Your task to perform on an android device: check android version Image 0: 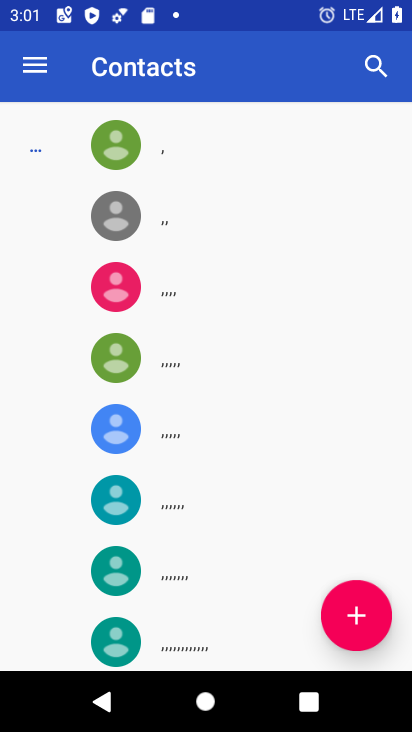
Step 0: press home button
Your task to perform on an android device: check android version Image 1: 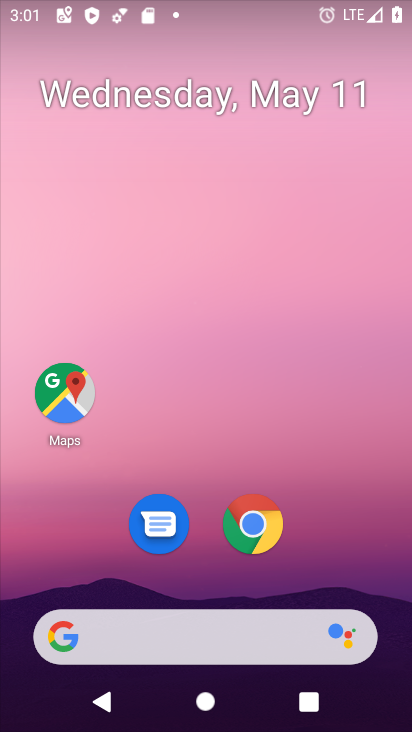
Step 1: drag from (322, 537) to (238, 45)
Your task to perform on an android device: check android version Image 2: 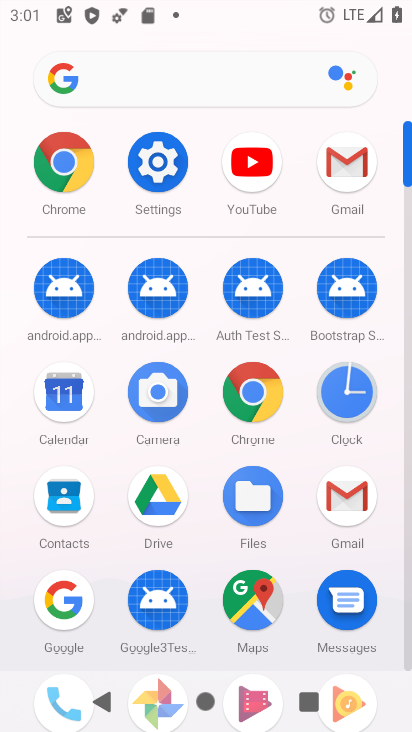
Step 2: click (159, 155)
Your task to perform on an android device: check android version Image 3: 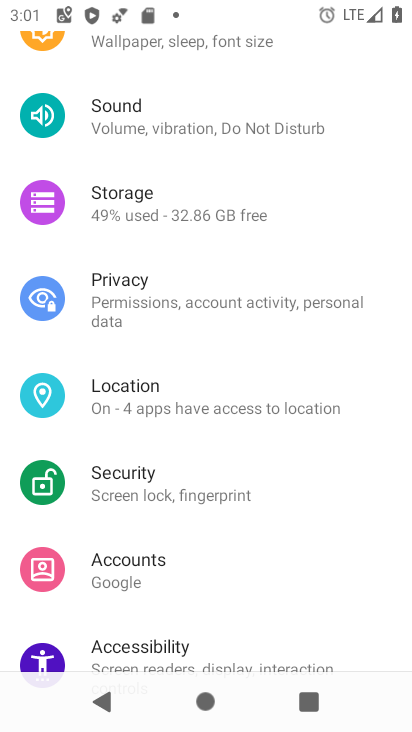
Step 3: drag from (239, 587) to (259, 59)
Your task to perform on an android device: check android version Image 4: 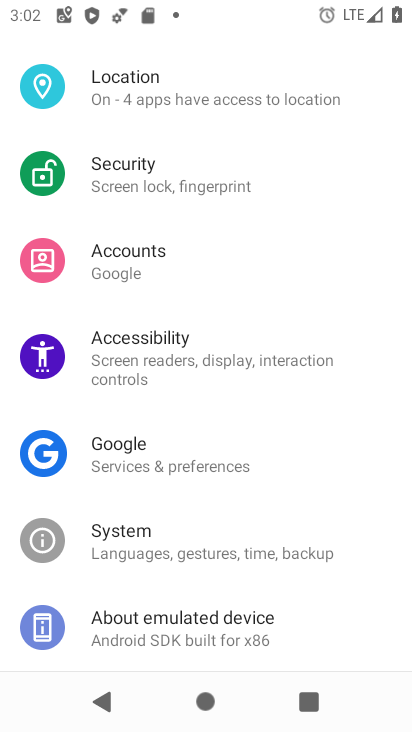
Step 4: click (169, 627)
Your task to perform on an android device: check android version Image 5: 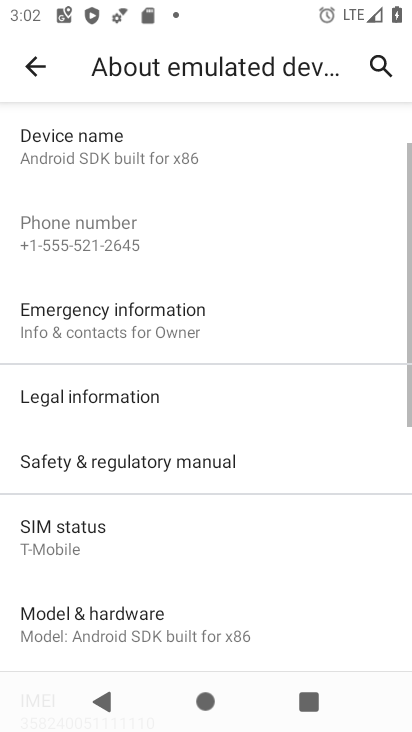
Step 5: drag from (132, 542) to (147, 319)
Your task to perform on an android device: check android version Image 6: 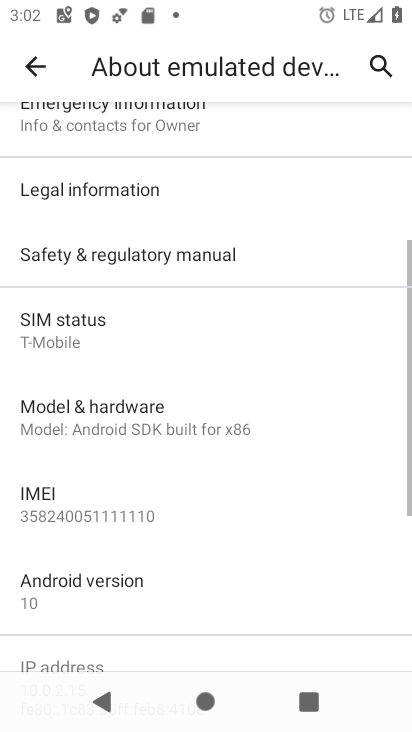
Step 6: click (159, 594)
Your task to perform on an android device: check android version Image 7: 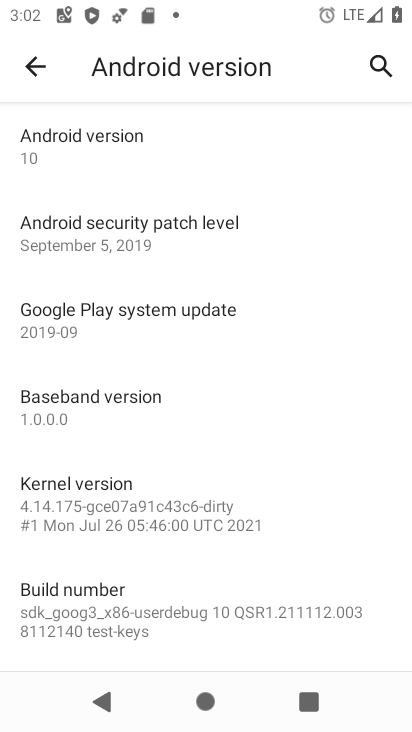
Step 7: task complete